Your task to perform on an android device: change alarm snooze length Image 0: 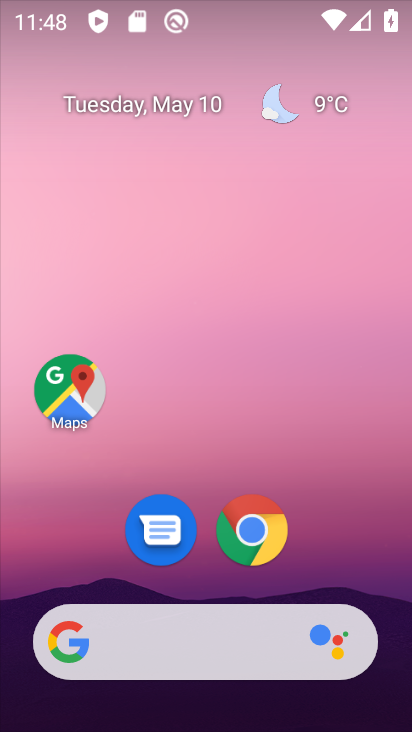
Step 0: drag from (325, 521) to (310, 6)
Your task to perform on an android device: change alarm snooze length Image 1: 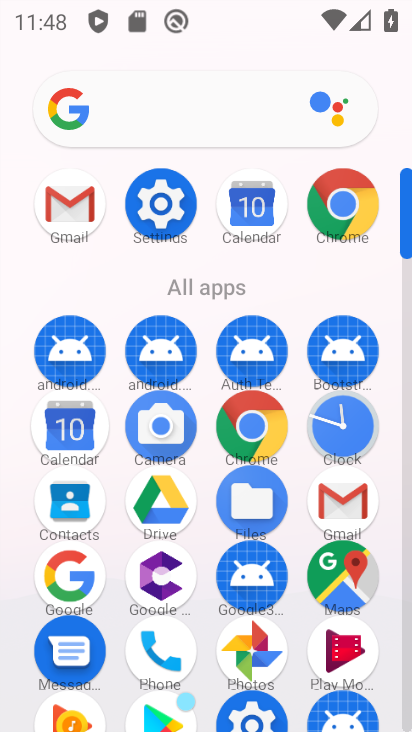
Step 1: click (315, 434)
Your task to perform on an android device: change alarm snooze length Image 2: 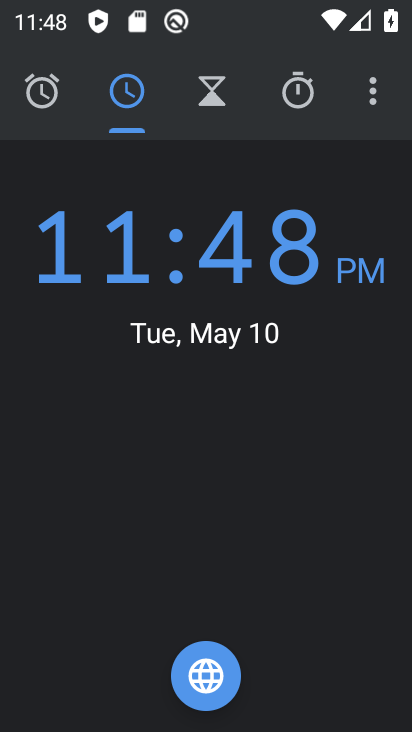
Step 2: click (360, 102)
Your task to perform on an android device: change alarm snooze length Image 3: 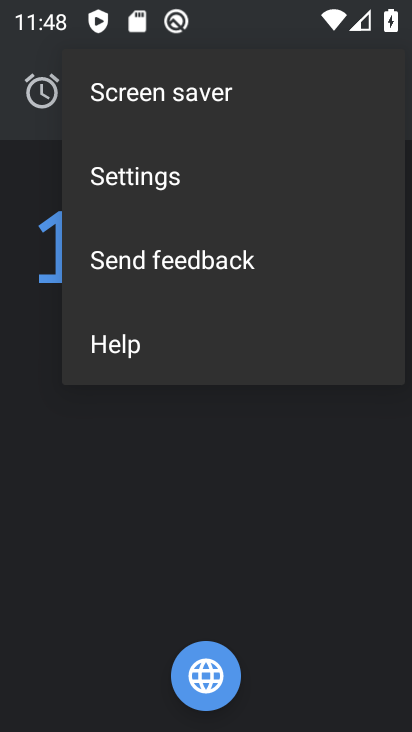
Step 3: click (299, 149)
Your task to perform on an android device: change alarm snooze length Image 4: 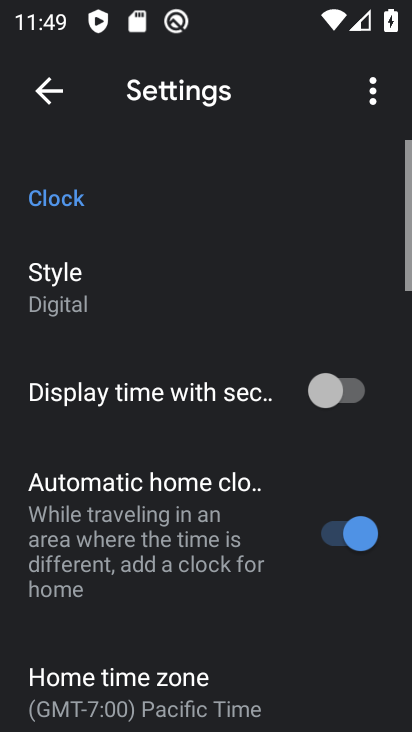
Step 4: drag from (294, 550) to (224, 137)
Your task to perform on an android device: change alarm snooze length Image 5: 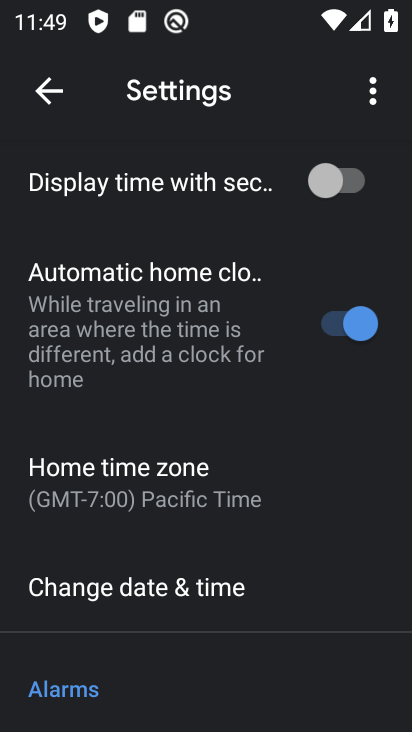
Step 5: drag from (256, 492) to (220, 12)
Your task to perform on an android device: change alarm snooze length Image 6: 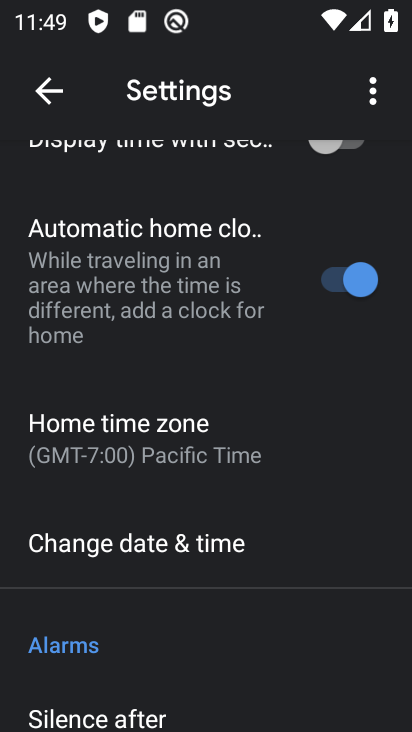
Step 6: drag from (243, 349) to (243, 129)
Your task to perform on an android device: change alarm snooze length Image 7: 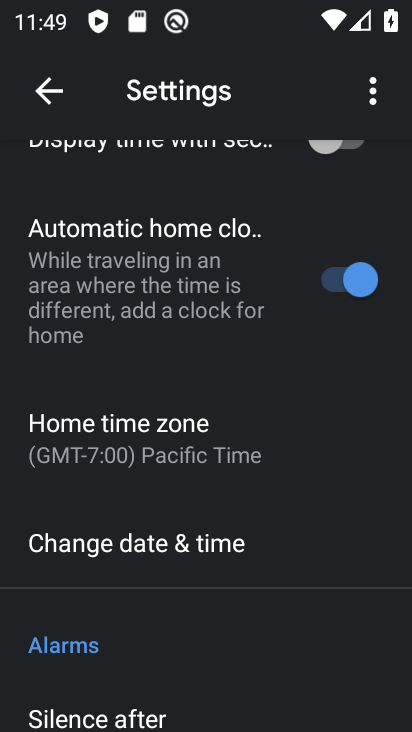
Step 7: drag from (140, 637) to (188, 269)
Your task to perform on an android device: change alarm snooze length Image 8: 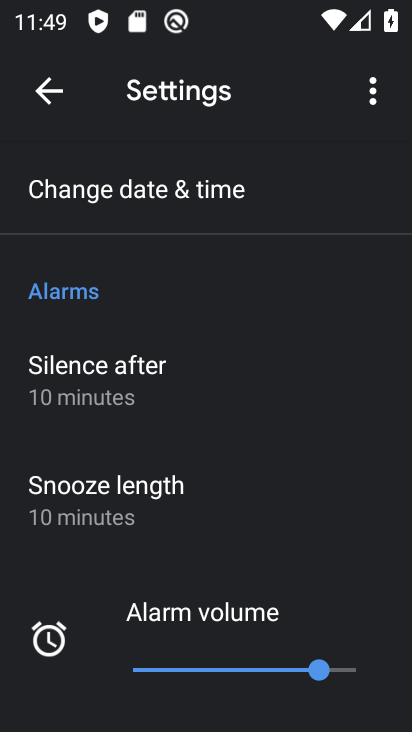
Step 8: click (102, 500)
Your task to perform on an android device: change alarm snooze length Image 9: 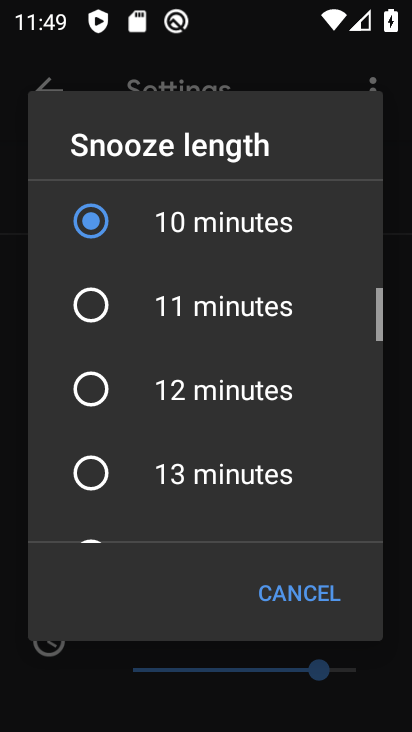
Step 9: click (115, 467)
Your task to perform on an android device: change alarm snooze length Image 10: 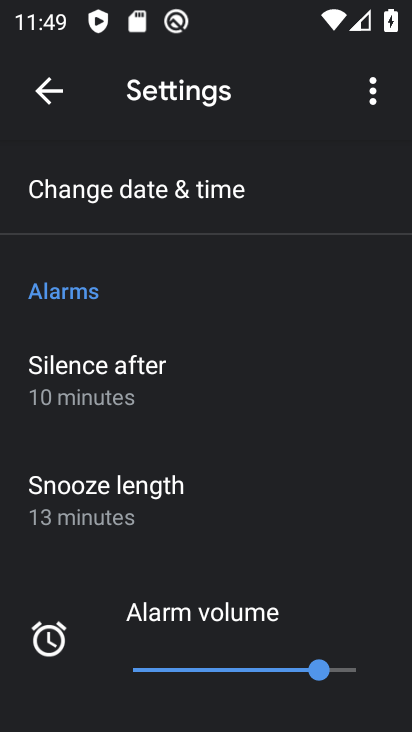
Step 10: task complete